Your task to perform on an android device: turn off location Image 0: 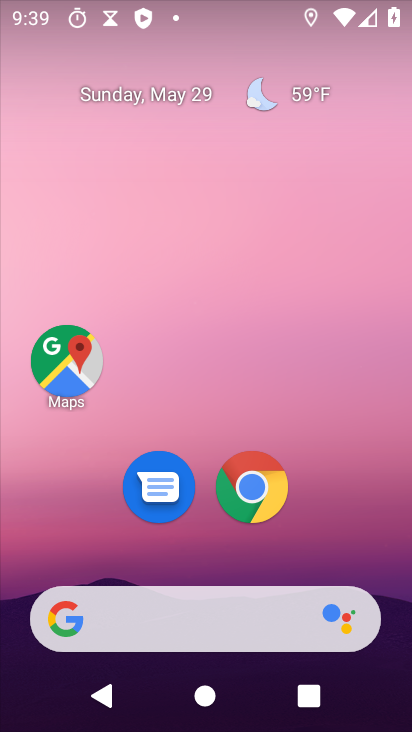
Step 0: drag from (333, 543) to (287, 133)
Your task to perform on an android device: turn off location Image 1: 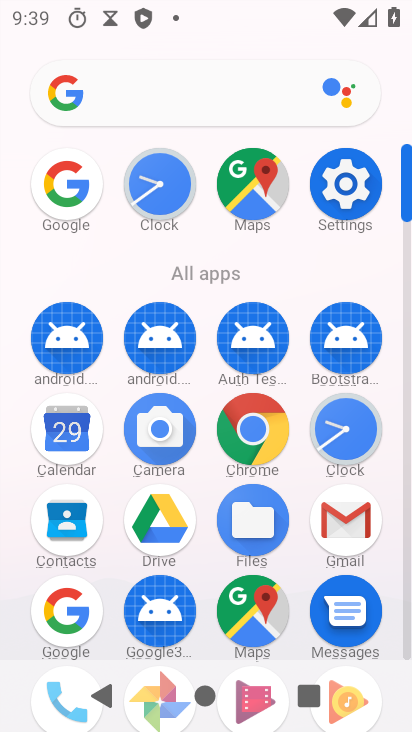
Step 1: click (346, 184)
Your task to perform on an android device: turn off location Image 2: 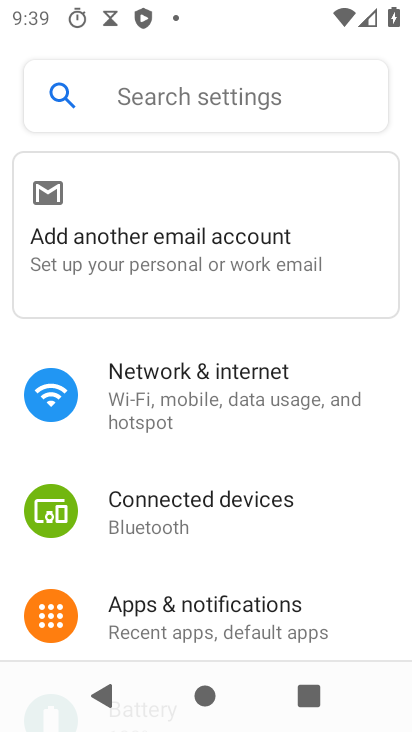
Step 2: drag from (169, 470) to (214, 351)
Your task to perform on an android device: turn off location Image 3: 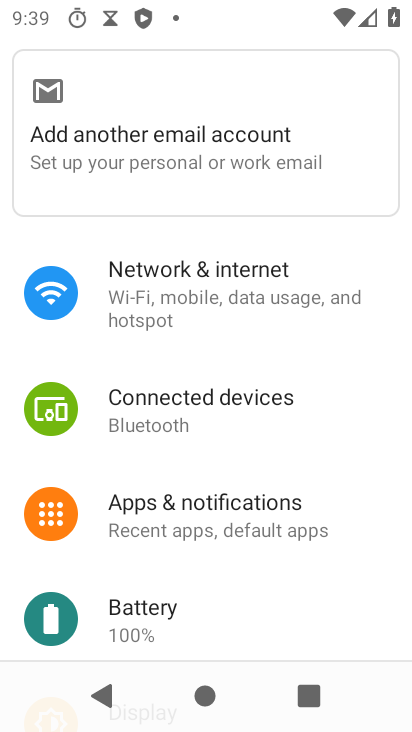
Step 3: drag from (188, 535) to (268, 437)
Your task to perform on an android device: turn off location Image 4: 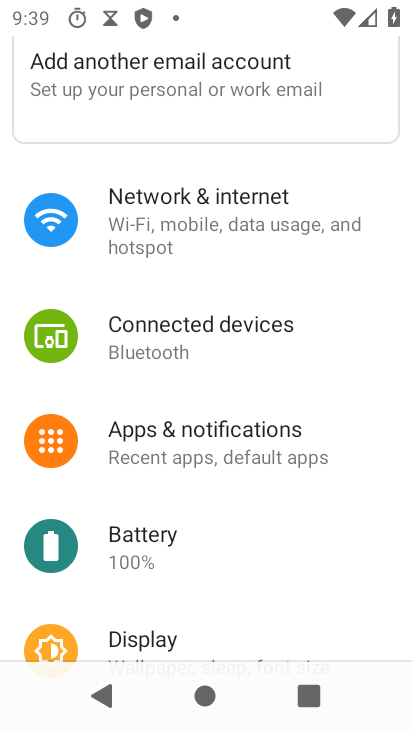
Step 4: drag from (205, 540) to (308, 411)
Your task to perform on an android device: turn off location Image 5: 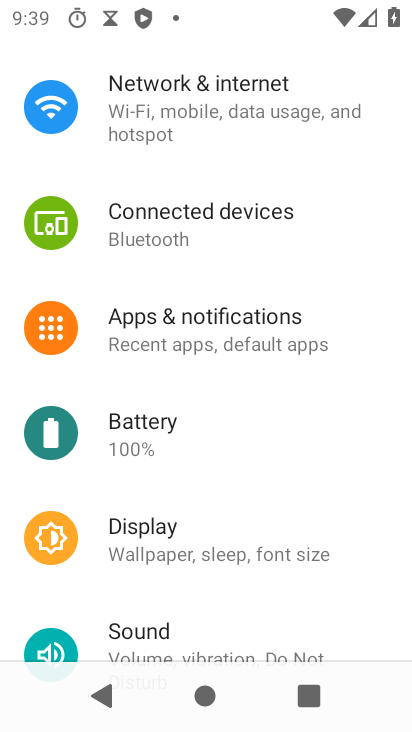
Step 5: drag from (252, 521) to (303, 453)
Your task to perform on an android device: turn off location Image 6: 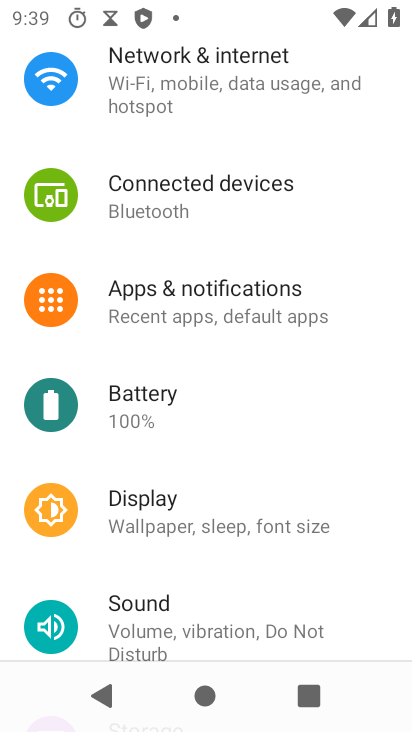
Step 6: drag from (200, 585) to (293, 447)
Your task to perform on an android device: turn off location Image 7: 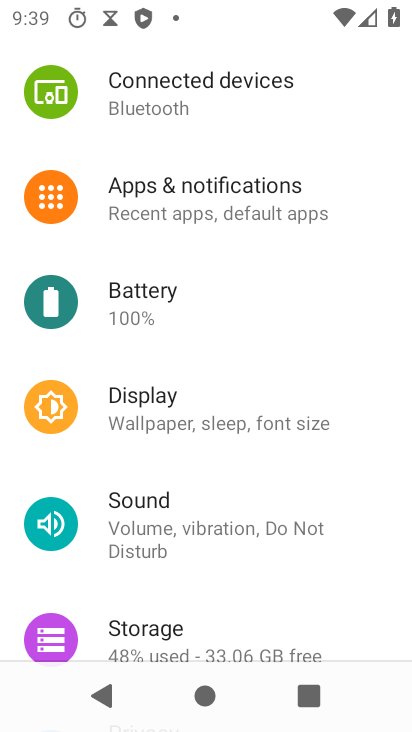
Step 7: click (290, 484)
Your task to perform on an android device: turn off location Image 8: 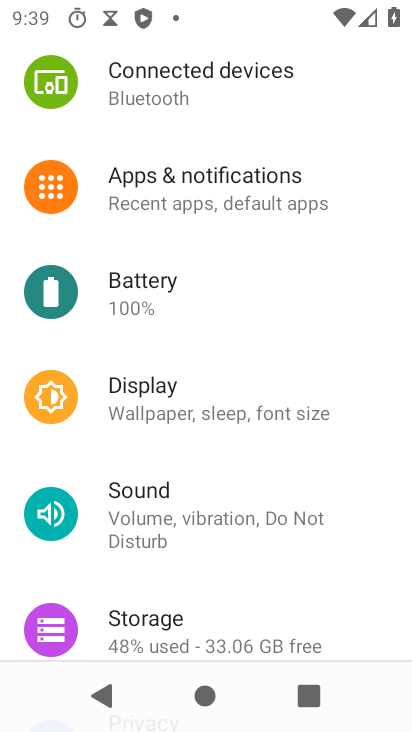
Step 8: drag from (217, 571) to (315, 435)
Your task to perform on an android device: turn off location Image 9: 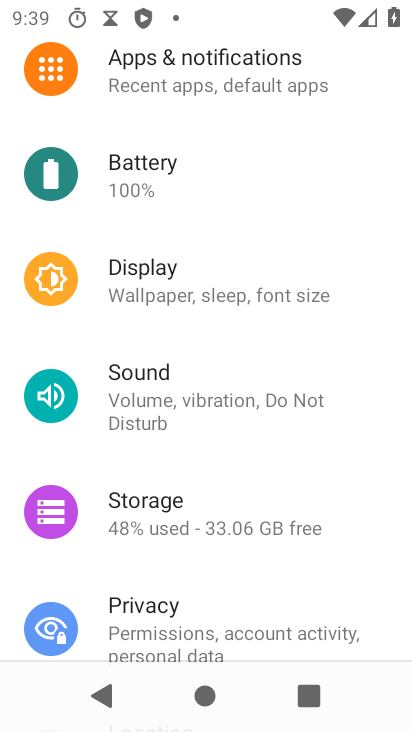
Step 9: drag from (242, 521) to (325, 421)
Your task to perform on an android device: turn off location Image 10: 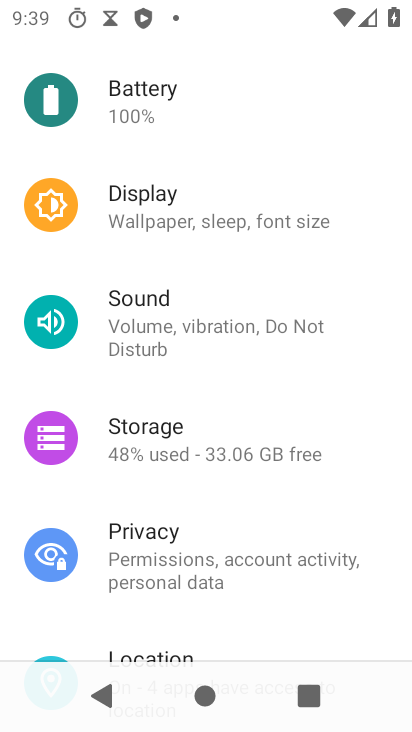
Step 10: drag from (198, 601) to (327, 441)
Your task to perform on an android device: turn off location Image 11: 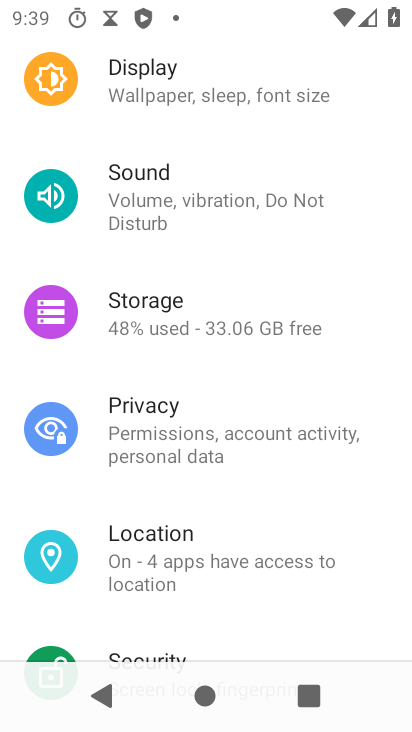
Step 11: click (195, 557)
Your task to perform on an android device: turn off location Image 12: 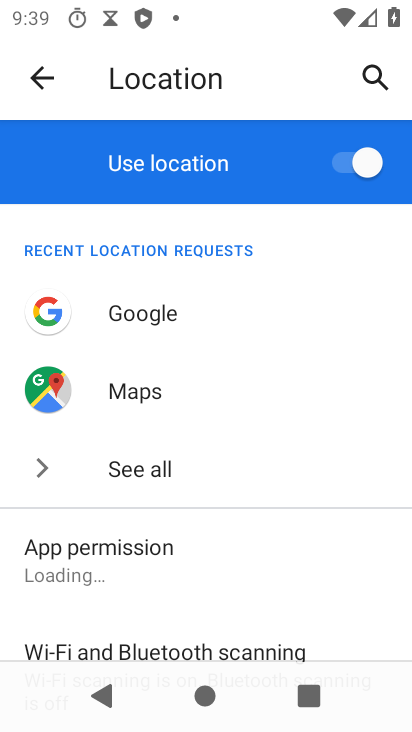
Step 12: click (350, 168)
Your task to perform on an android device: turn off location Image 13: 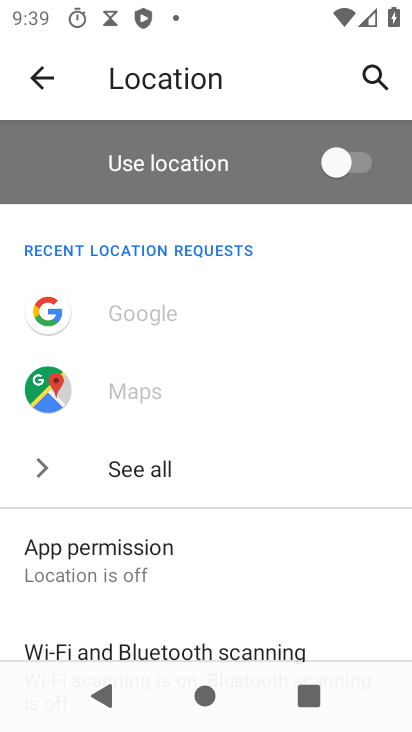
Step 13: task complete